Your task to perform on an android device: turn off wifi Image 0: 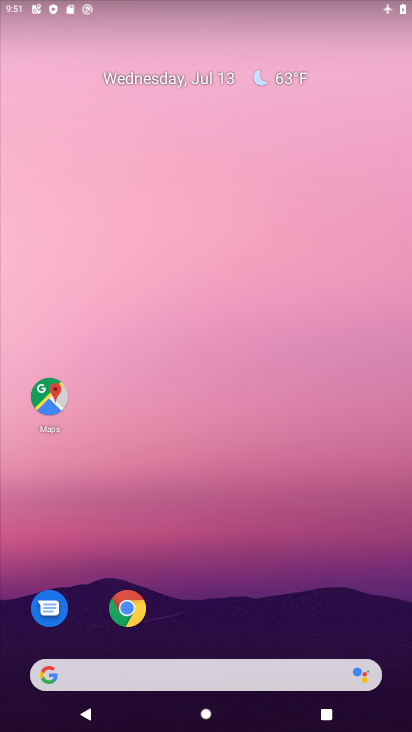
Step 0: drag from (186, 546) to (189, 30)
Your task to perform on an android device: turn off wifi Image 1: 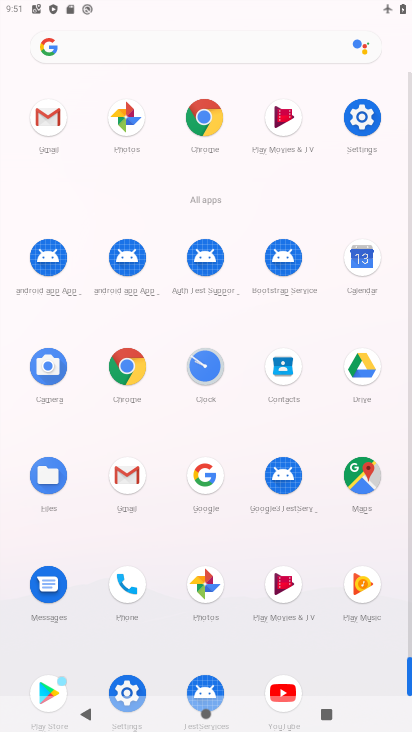
Step 1: click (364, 123)
Your task to perform on an android device: turn off wifi Image 2: 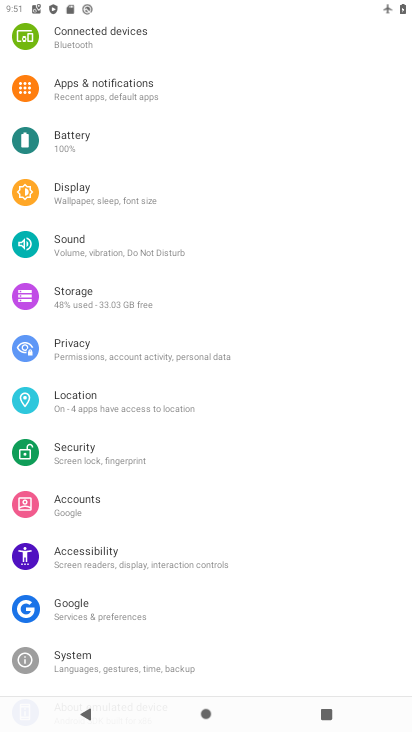
Step 2: drag from (198, 143) to (197, 497)
Your task to perform on an android device: turn off wifi Image 3: 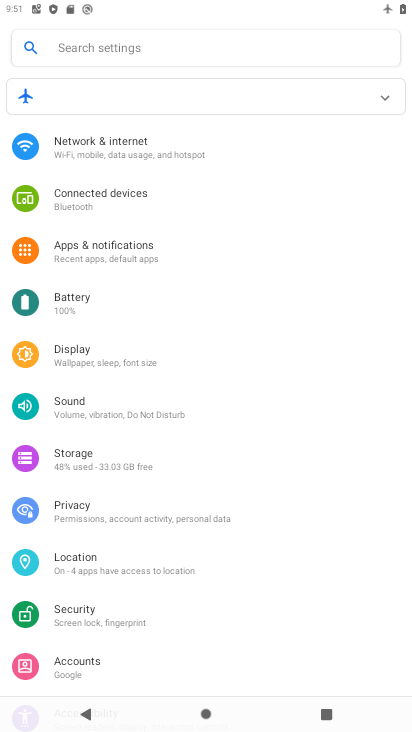
Step 3: click (147, 155)
Your task to perform on an android device: turn off wifi Image 4: 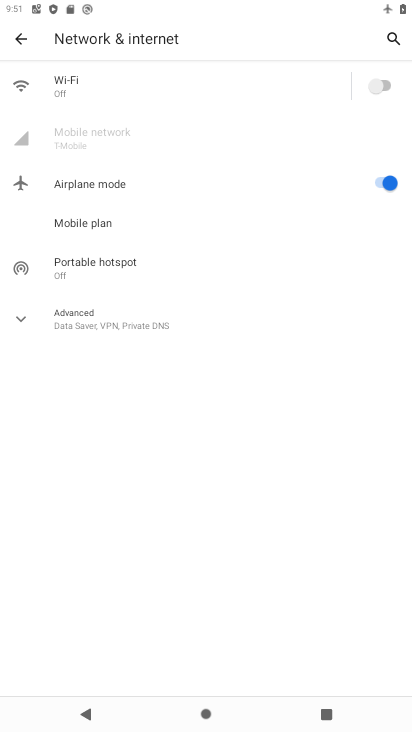
Step 4: task complete